Your task to perform on an android device: Go to Wikipedia Image 0: 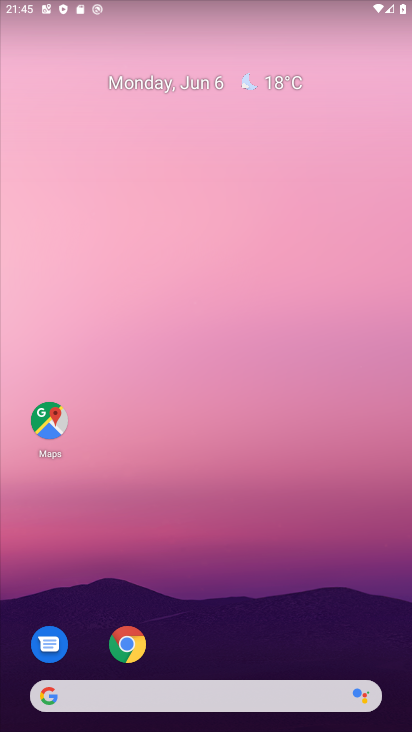
Step 0: drag from (328, 604) to (327, 213)
Your task to perform on an android device: Go to Wikipedia Image 1: 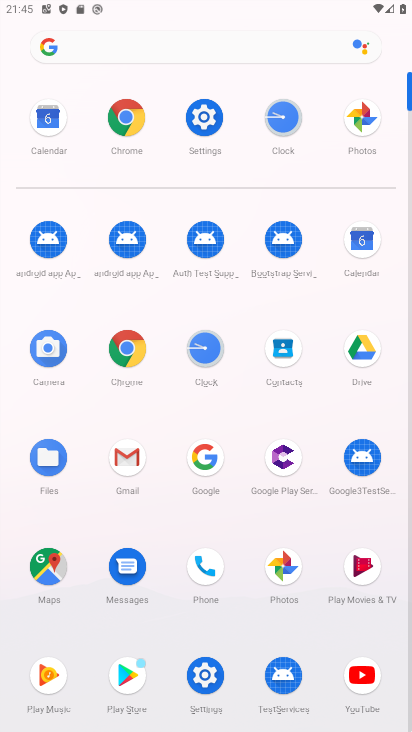
Step 1: click (116, 352)
Your task to perform on an android device: Go to Wikipedia Image 2: 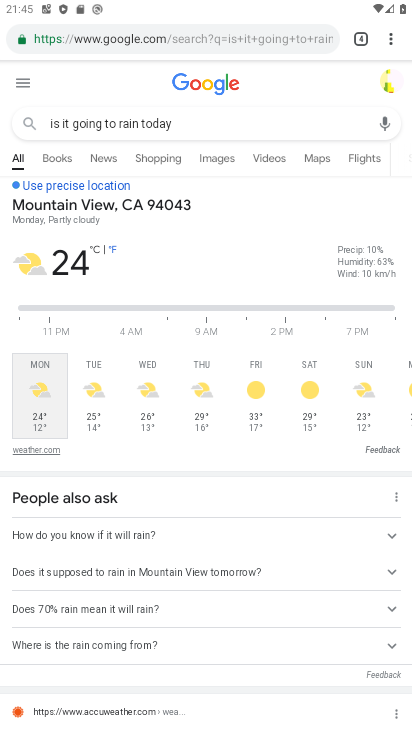
Step 2: click (364, 41)
Your task to perform on an android device: Go to Wikipedia Image 3: 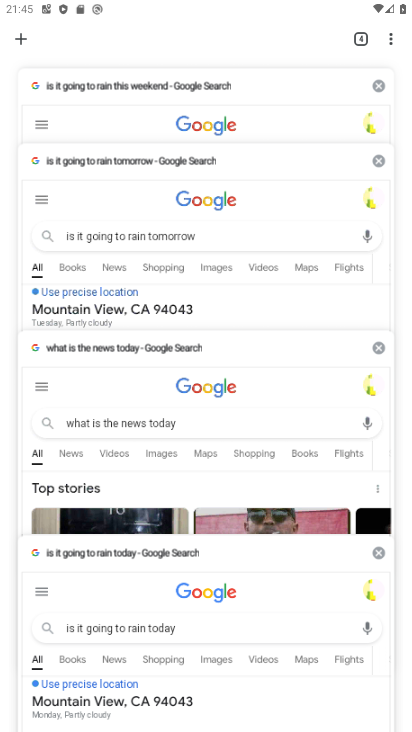
Step 3: click (21, 39)
Your task to perform on an android device: Go to Wikipedia Image 4: 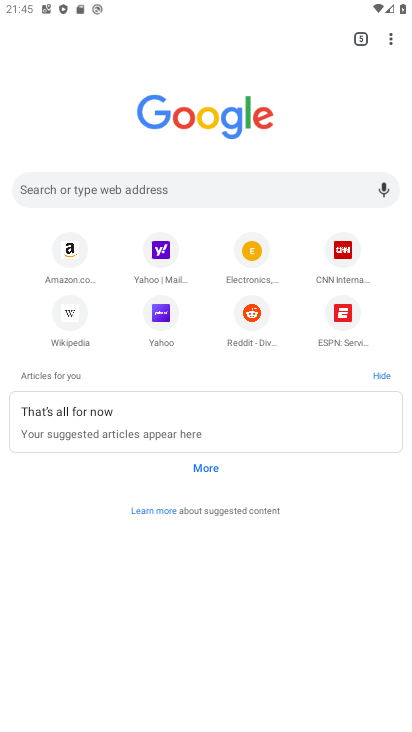
Step 4: click (67, 322)
Your task to perform on an android device: Go to Wikipedia Image 5: 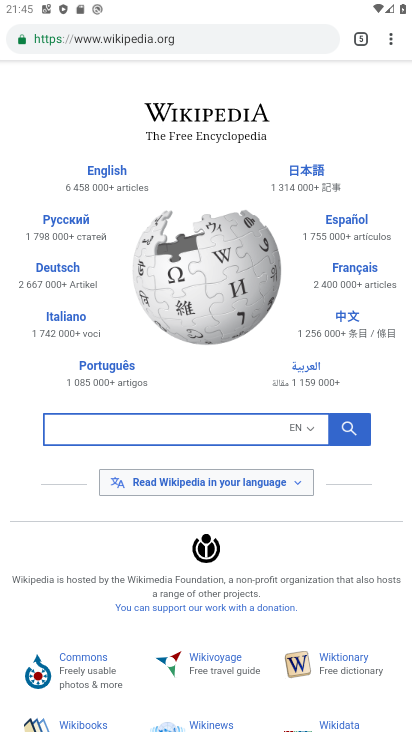
Step 5: task complete